Your task to perform on an android device: open device folders in google photos Image 0: 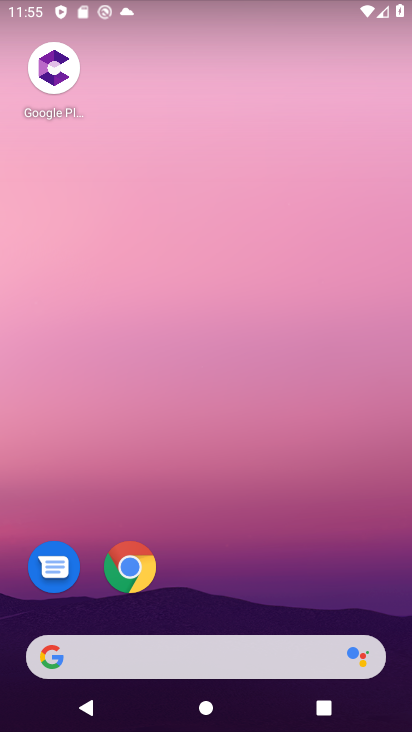
Step 0: drag from (221, 662) to (304, 106)
Your task to perform on an android device: open device folders in google photos Image 1: 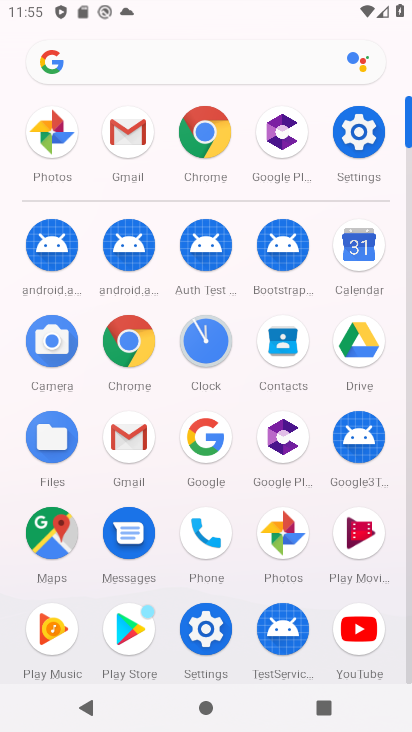
Step 1: click (274, 534)
Your task to perform on an android device: open device folders in google photos Image 2: 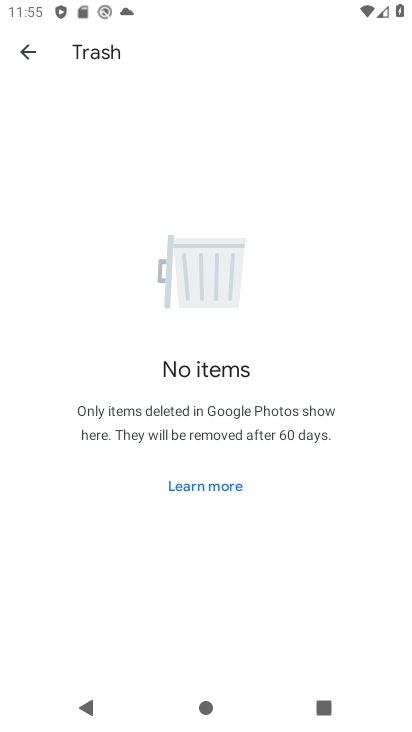
Step 2: click (20, 50)
Your task to perform on an android device: open device folders in google photos Image 3: 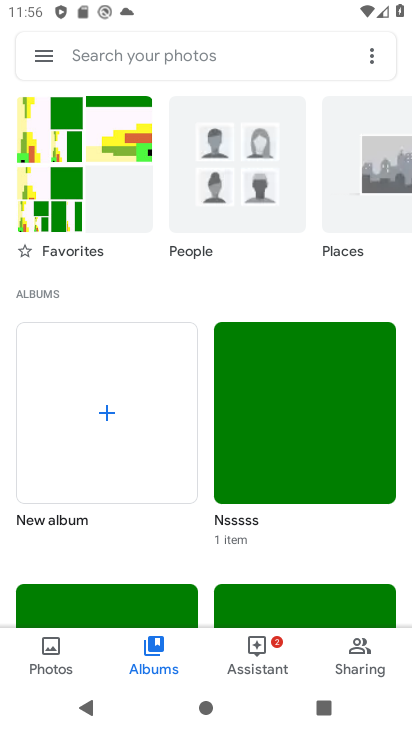
Step 3: task complete